Your task to perform on an android device: Search for pizza restaurants on Maps Image 0: 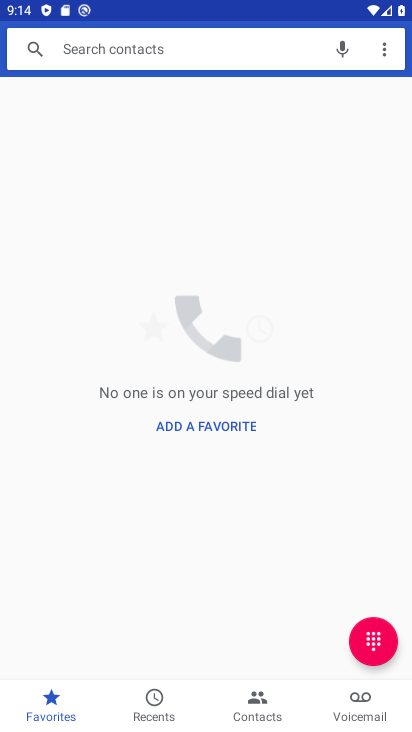
Step 0: press home button
Your task to perform on an android device: Search for pizza restaurants on Maps Image 1: 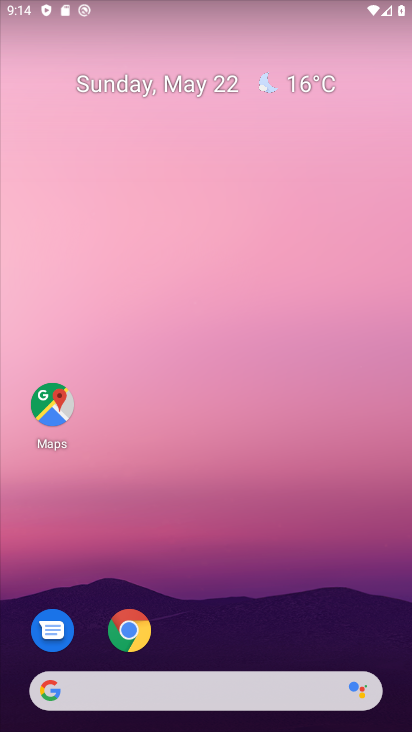
Step 1: click (51, 403)
Your task to perform on an android device: Search for pizza restaurants on Maps Image 2: 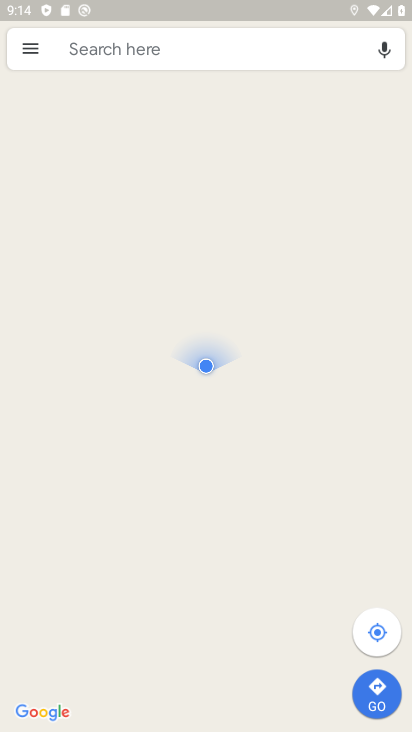
Step 2: click (126, 48)
Your task to perform on an android device: Search for pizza restaurants on Maps Image 3: 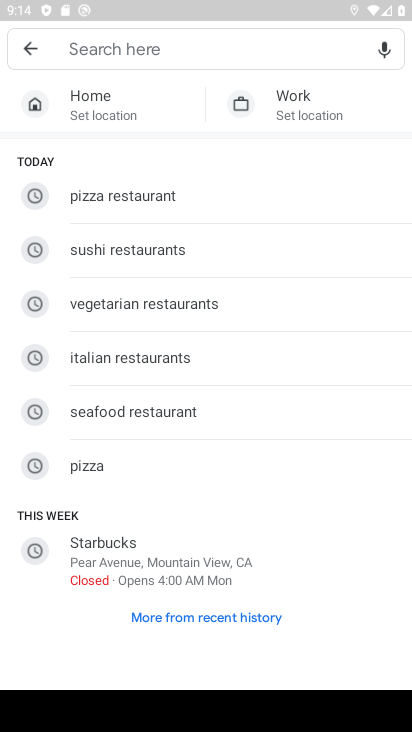
Step 3: type "pizza restaurants"
Your task to perform on an android device: Search for pizza restaurants on Maps Image 4: 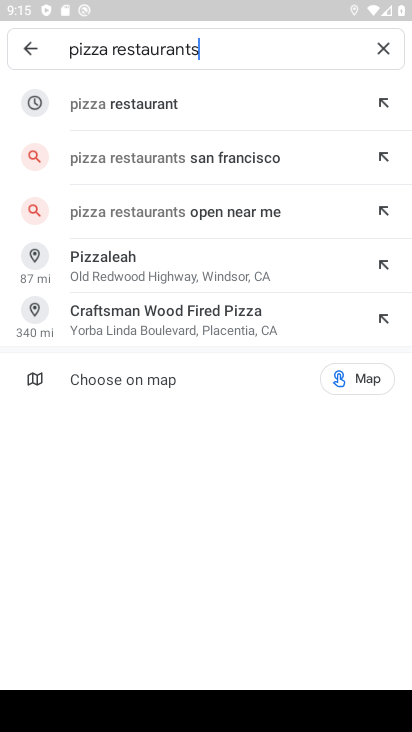
Step 4: click (142, 108)
Your task to perform on an android device: Search for pizza restaurants on Maps Image 5: 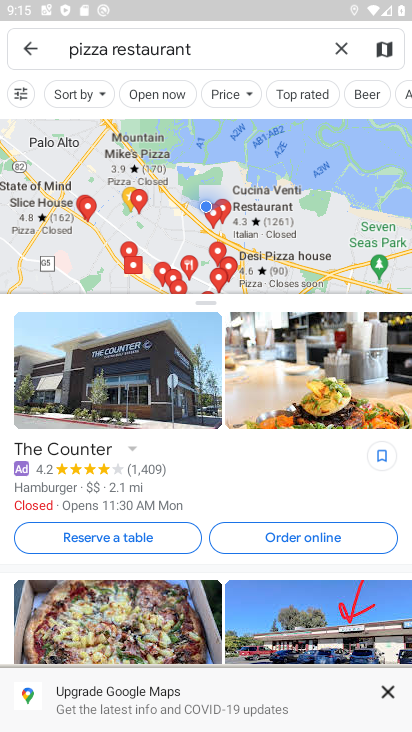
Step 5: task complete